Your task to perform on an android device: Open Youtube and go to the subscriptions tab Image 0: 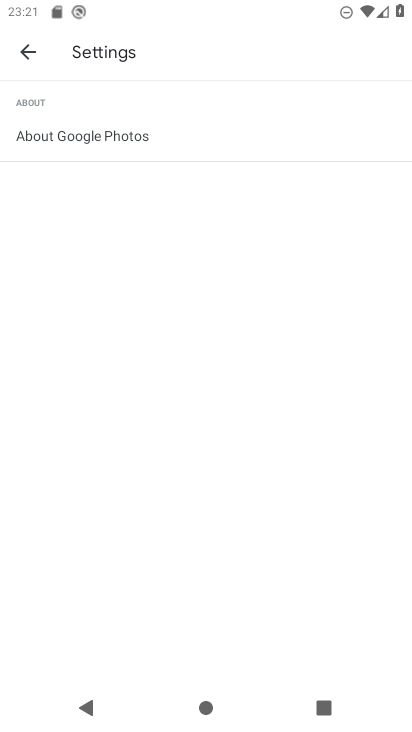
Step 0: press home button
Your task to perform on an android device: Open Youtube and go to the subscriptions tab Image 1: 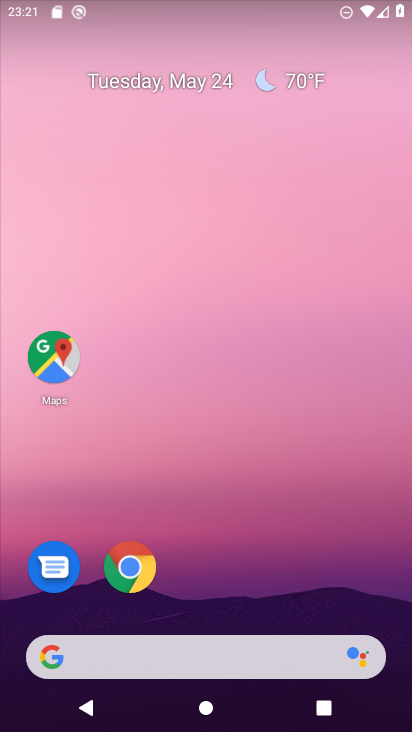
Step 1: drag from (271, 543) to (217, 49)
Your task to perform on an android device: Open Youtube and go to the subscriptions tab Image 2: 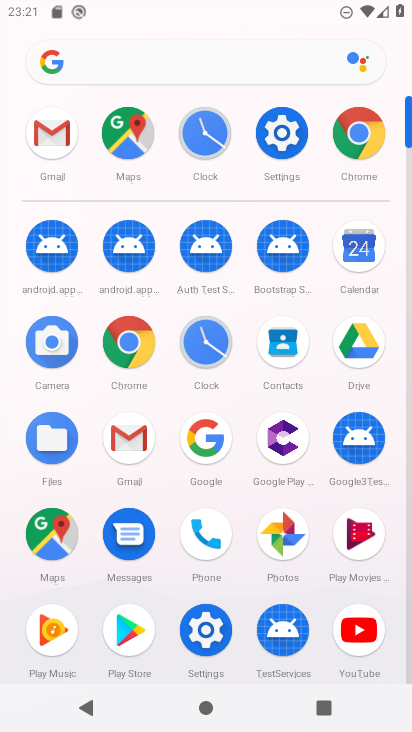
Step 2: click (367, 624)
Your task to perform on an android device: Open Youtube and go to the subscriptions tab Image 3: 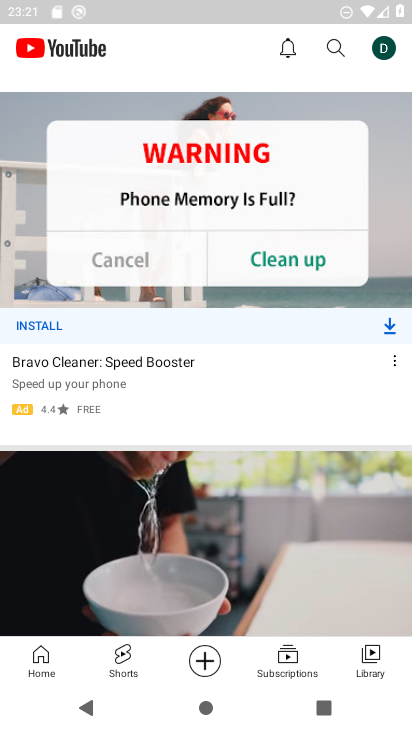
Step 3: click (296, 658)
Your task to perform on an android device: Open Youtube and go to the subscriptions tab Image 4: 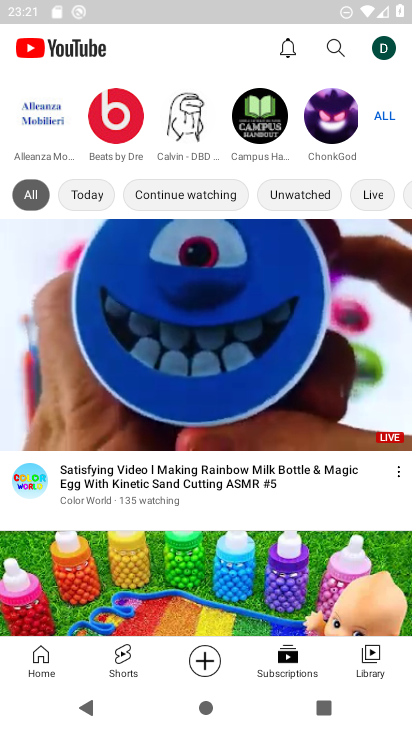
Step 4: task complete